Your task to perform on an android device: toggle improve location accuracy Image 0: 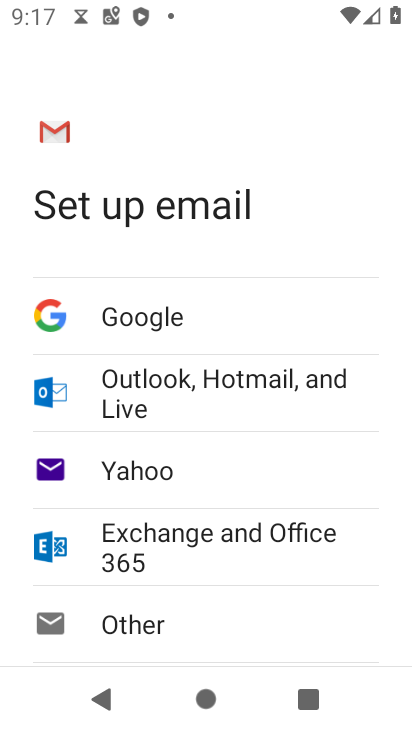
Step 0: press back button
Your task to perform on an android device: toggle improve location accuracy Image 1: 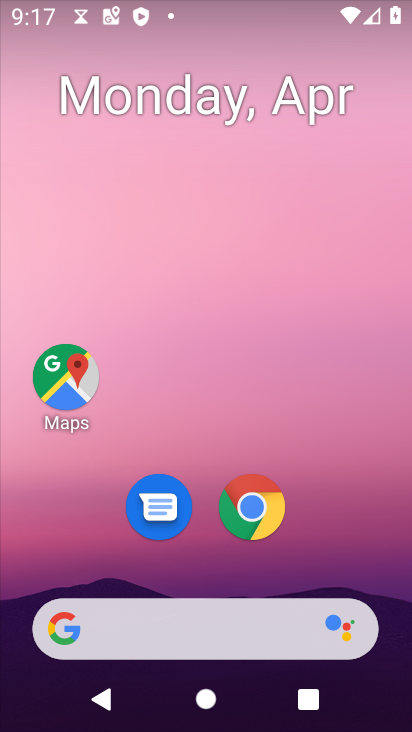
Step 1: drag from (329, 549) to (306, 134)
Your task to perform on an android device: toggle improve location accuracy Image 2: 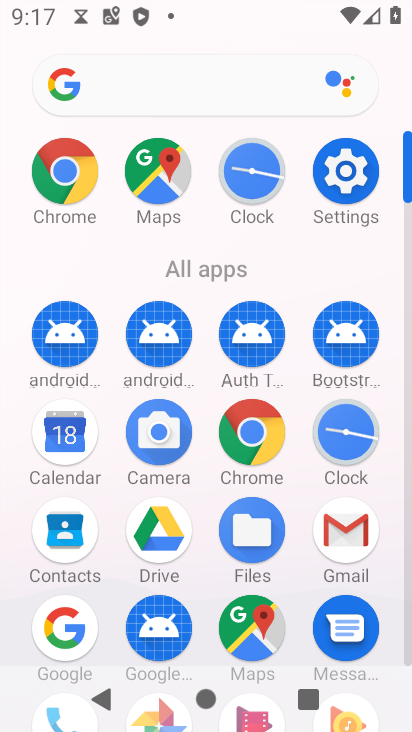
Step 2: click (352, 184)
Your task to perform on an android device: toggle improve location accuracy Image 3: 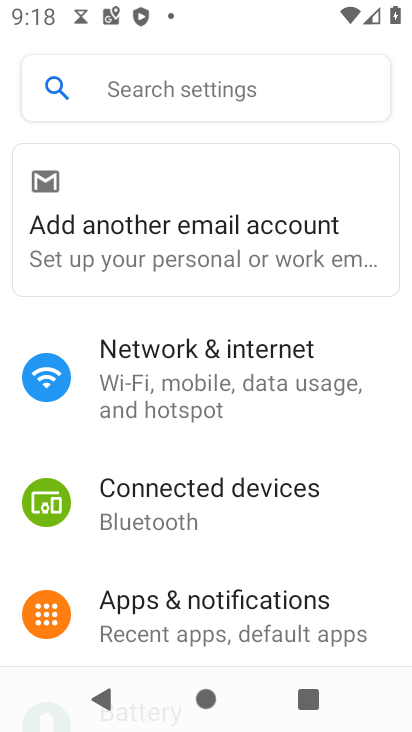
Step 3: drag from (269, 564) to (274, 462)
Your task to perform on an android device: toggle improve location accuracy Image 4: 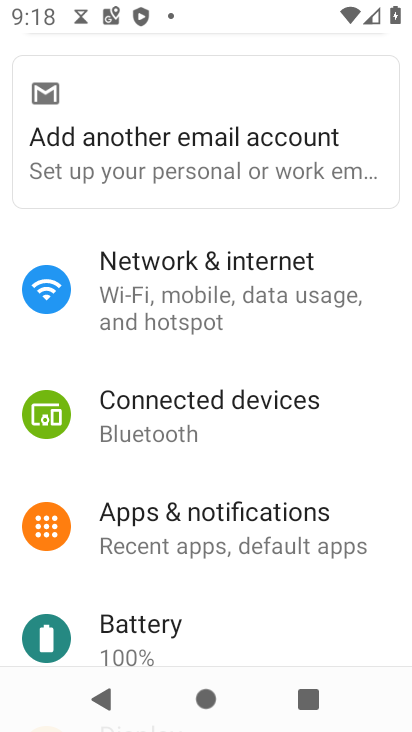
Step 4: drag from (207, 611) to (211, 497)
Your task to perform on an android device: toggle improve location accuracy Image 5: 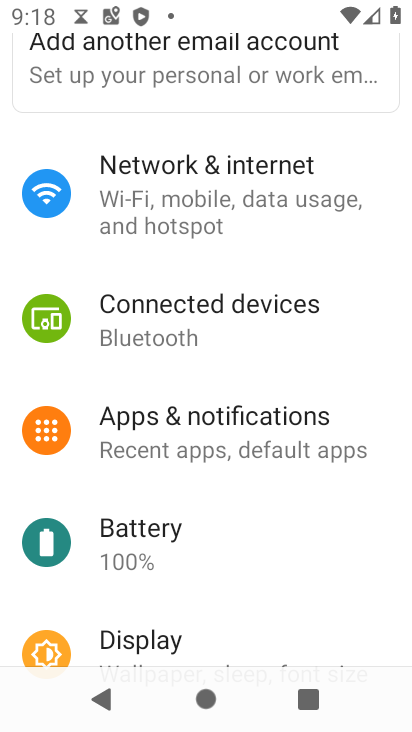
Step 5: drag from (207, 582) to (200, 470)
Your task to perform on an android device: toggle improve location accuracy Image 6: 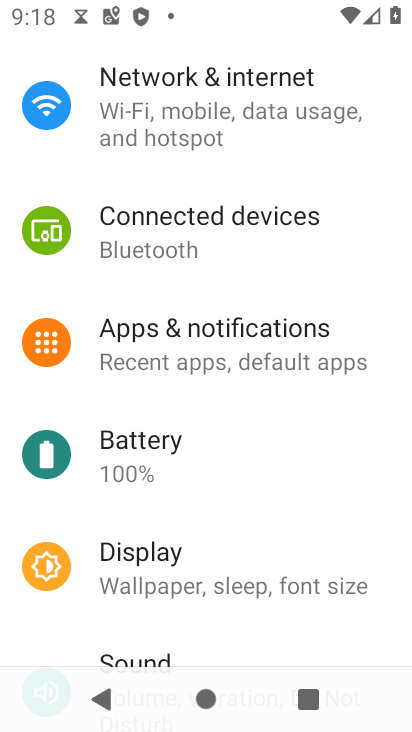
Step 6: drag from (161, 565) to (185, 485)
Your task to perform on an android device: toggle improve location accuracy Image 7: 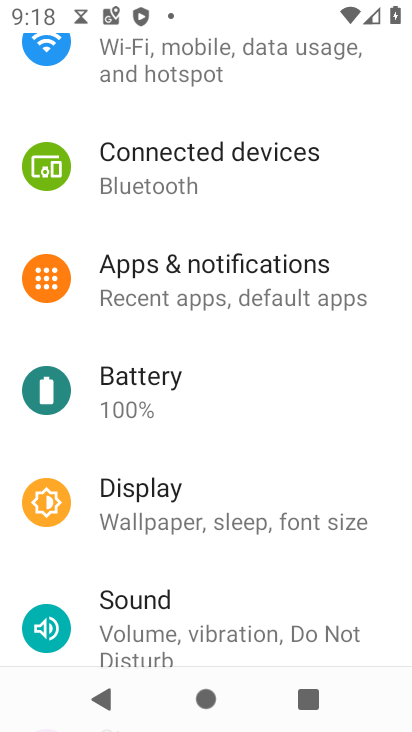
Step 7: drag from (173, 554) to (209, 461)
Your task to perform on an android device: toggle improve location accuracy Image 8: 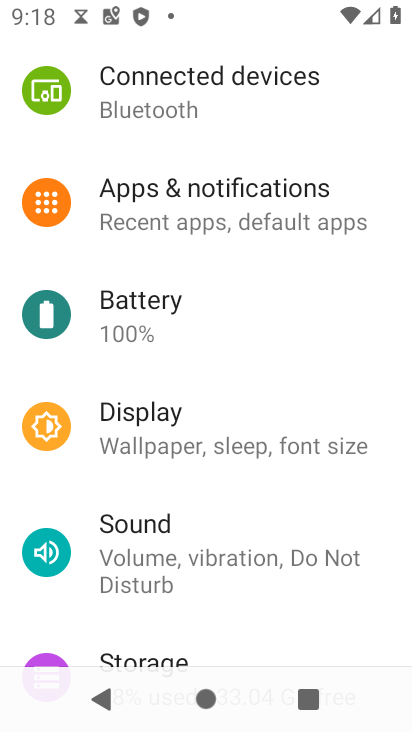
Step 8: drag from (183, 565) to (207, 462)
Your task to perform on an android device: toggle improve location accuracy Image 9: 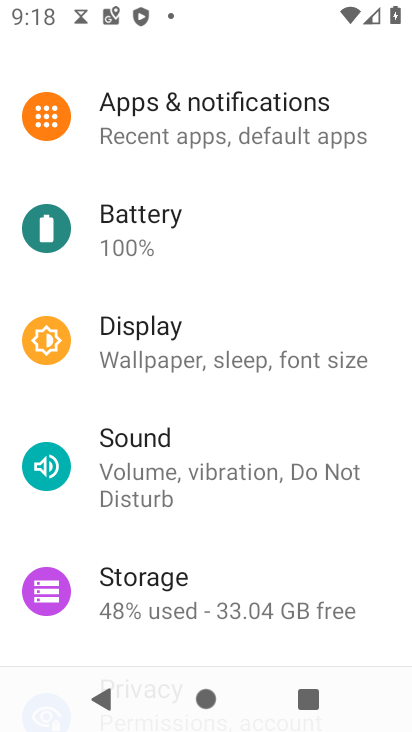
Step 9: drag from (202, 574) to (215, 486)
Your task to perform on an android device: toggle improve location accuracy Image 10: 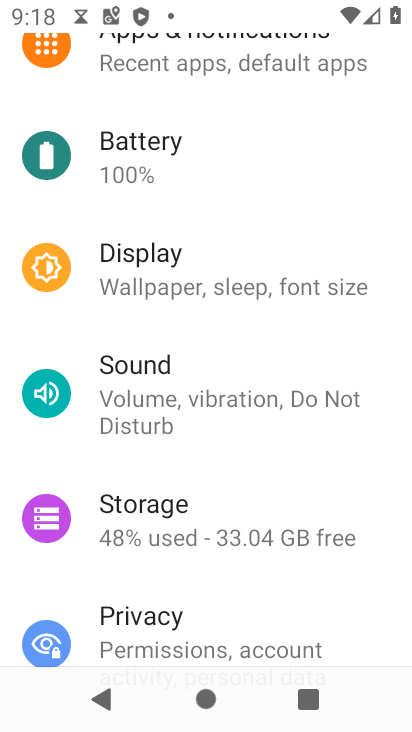
Step 10: drag from (197, 527) to (204, 451)
Your task to perform on an android device: toggle improve location accuracy Image 11: 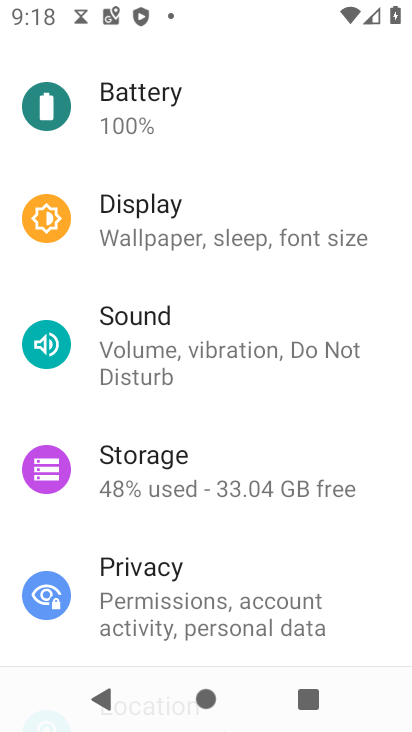
Step 11: drag from (220, 530) to (225, 432)
Your task to perform on an android device: toggle improve location accuracy Image 12: 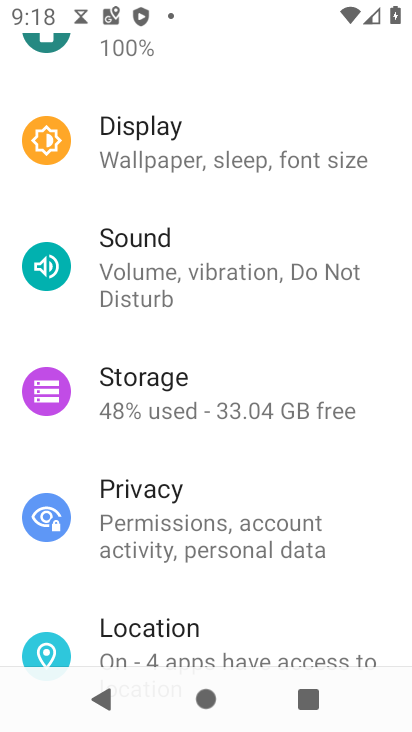
Step 12: drag from (212, 575) to (242, 404)
Your task to perform on an android device: toggle improve location accuracy Image 13: 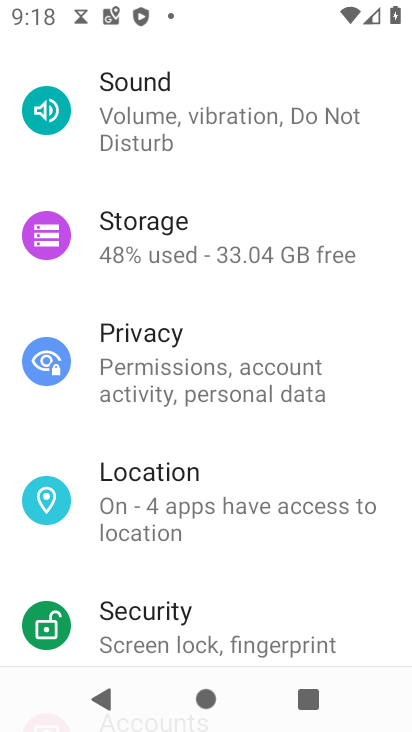
Step 13: click (221, 506)
Your task to perform on an android device: toggle improve location accuracy Image 14: 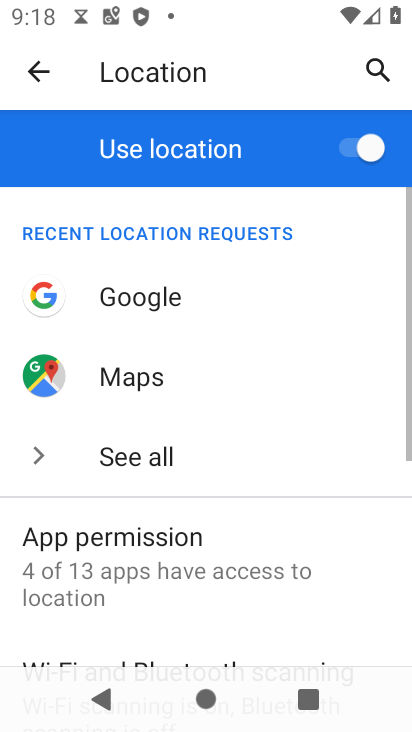
Step 14: drag from (203, 577) to (213, 471)
Your task to perform on an android device: toggle improve location accuracy Image 15: 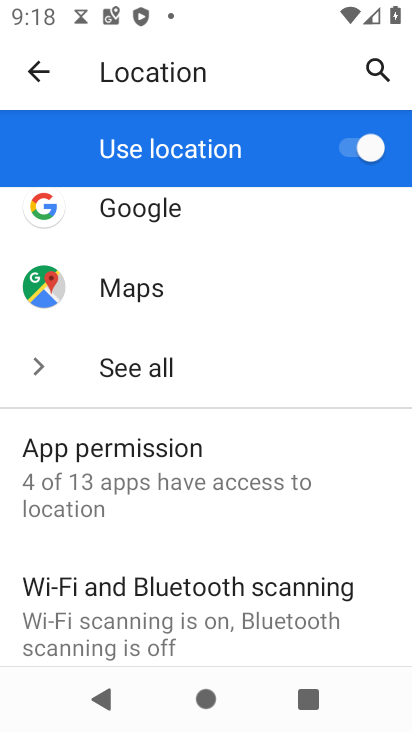
Step 15: drag from (200, 567) to (211, 474)
Your task to perform on an android device: toggle improve location accuracy Image 16: 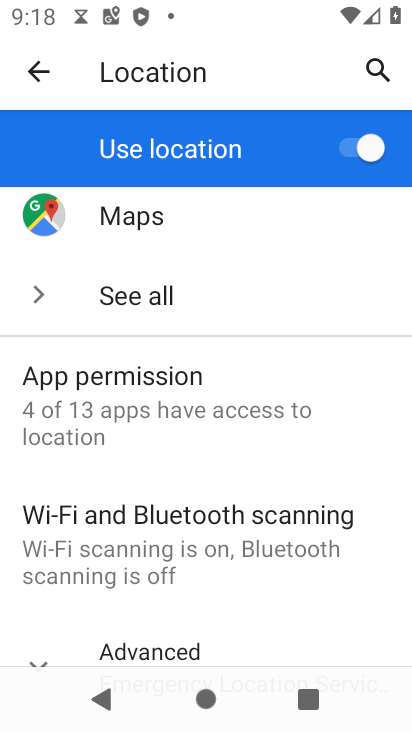
Step 16: drag from (211, 546) to (212, 466)
Your task to perform on an android device: toggle improve location accuracy Image 17: 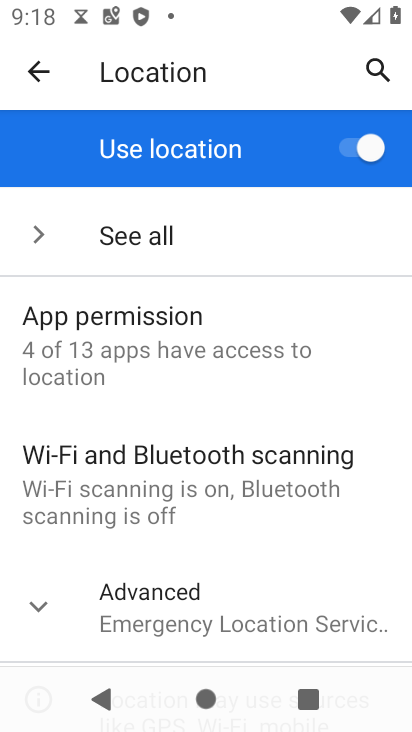
Step 17: drag from (213, 559) to (217, 479)
Your task to perform on an android device: toggle improve location accuracy Image 18: 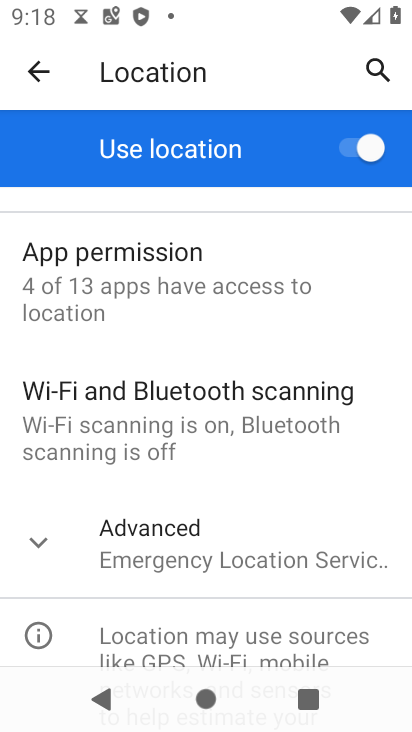
Step 18: click (196, 568)
Your task to perform on an android device: toggle improve location accuracy Image 19: 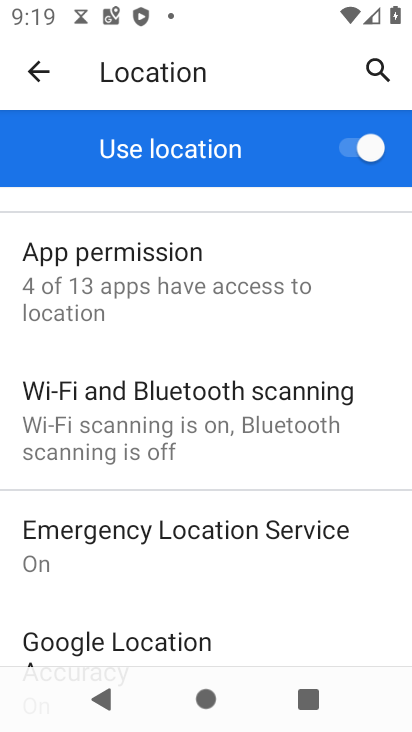
Step 19: drag from (199, 597) to (206, 487)
Your task to perform on an android device: toggle improve location accuracy Image 20: 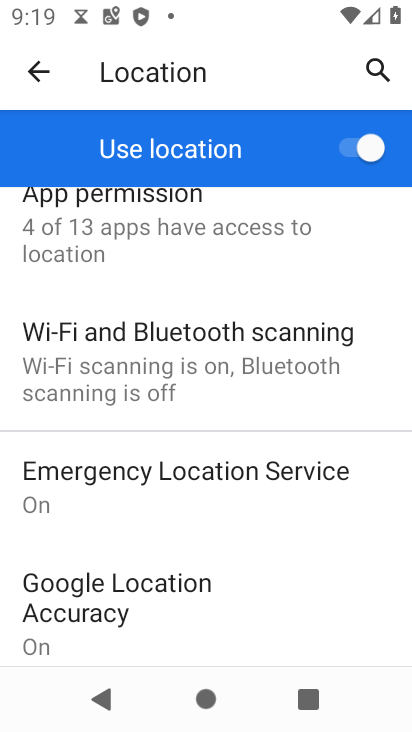
Step 20: click (167, 584)
Your task to perform on an android device: toggle improve location accuracy Image 21: 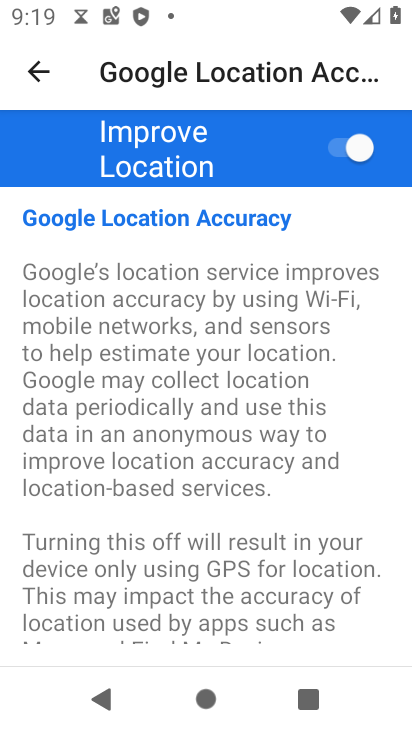
Step 21: click (355, 135)
Your task to perform on an android device: toggle improve location accuracy Image 22: 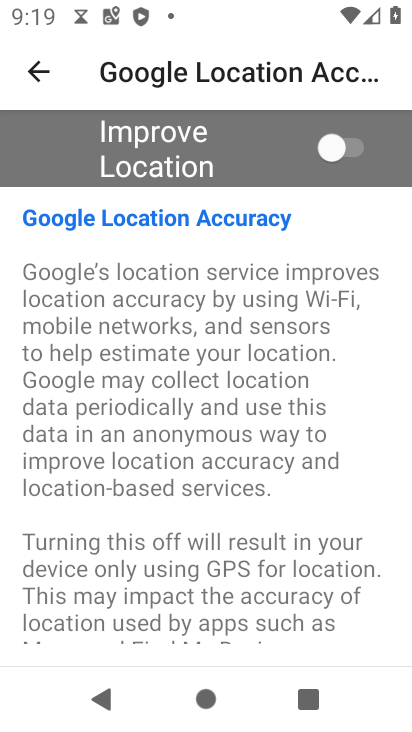
Step 22: task complete